Your task to perform on an android device: install app "ZOOM Cloud Meetings" Image 0: 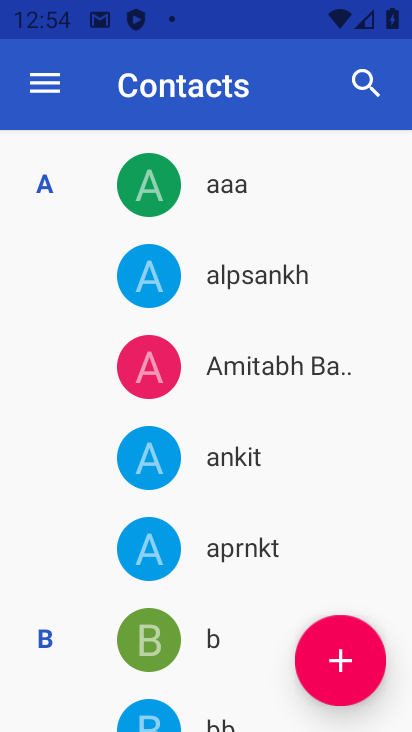
Step 0: press back button
Your task to perform on an android device: install app "ZOOM Cloud Meetings" Image 1: 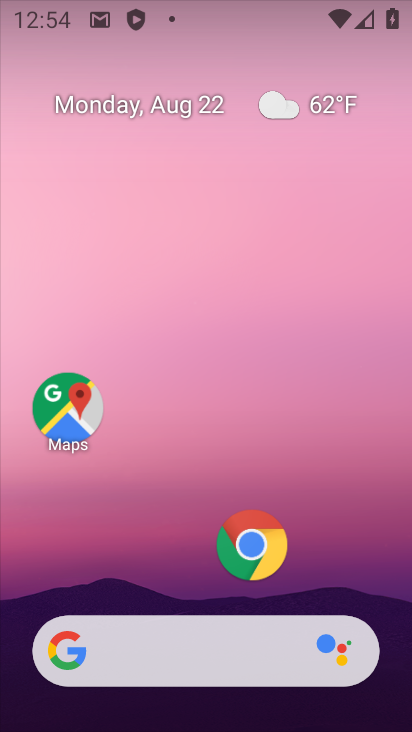
Step 1: drag from (165, 320) to (230, 18)
Your task to perform on an android device: install app "ZOOM Cloud Meetings" Image 2: 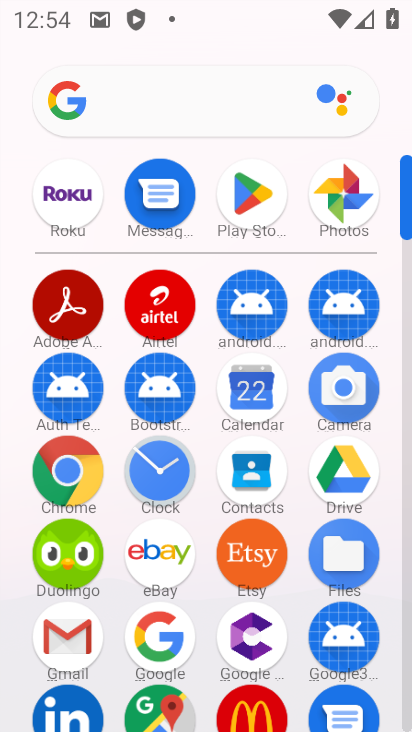
Step 2: click (243, 184)
Your task to perform on an android device: install app "ZOOM Cloud Meetings" Image 3: 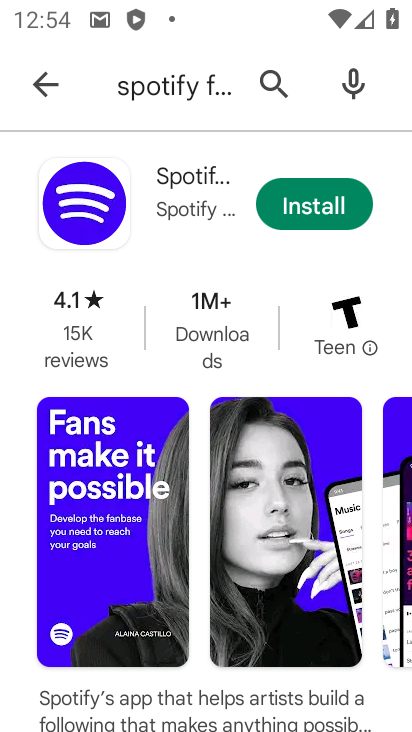
Step 3: click (269, 72)
Your task to perform on an android device: install app "ZOOM Cloud Meetings" Image 4: 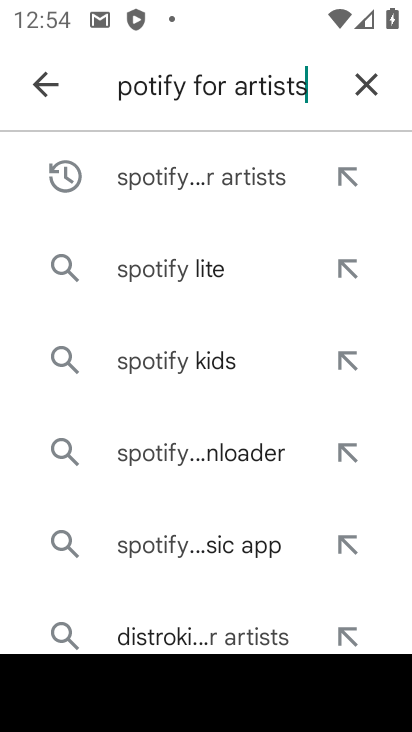
Step 4: click (352, 85)
Your task to perform on an android device: install app "ZOOM Cloud Meetings" Image 5: 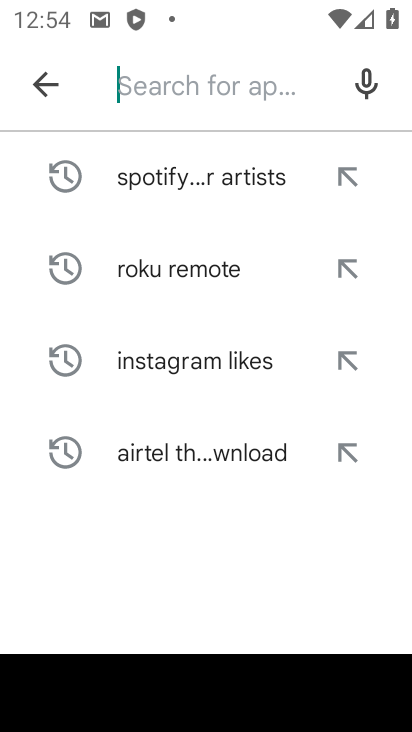
Step 5: click (147, 89)
Your task to perform on an android device: install app "ZOOM Cloud Meetings" Image 6: 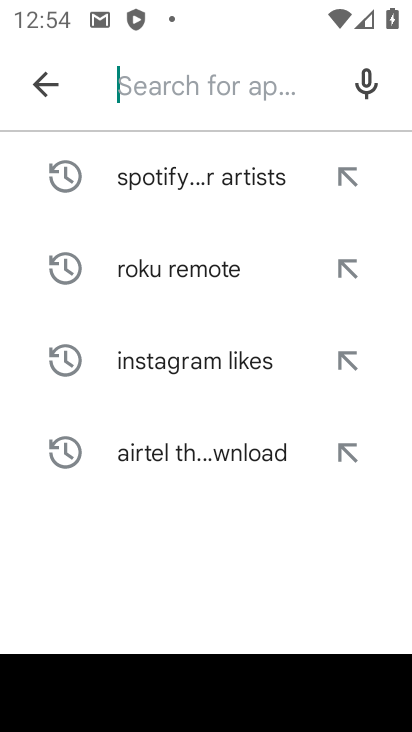
Step 6: type "zoom"
Your task to perform on an android device: install app "ZOOM Cloud Meetings" Image 7: 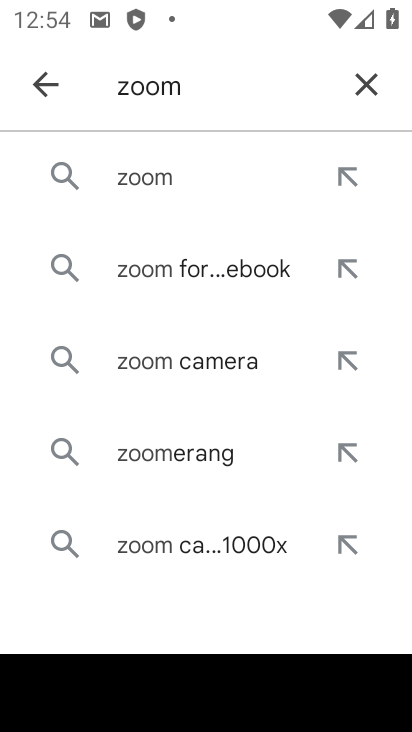
Step 7: click (133, 179)
Your task to perform on an android device: install app "ZOOM Cloud Meetings" Image 8: 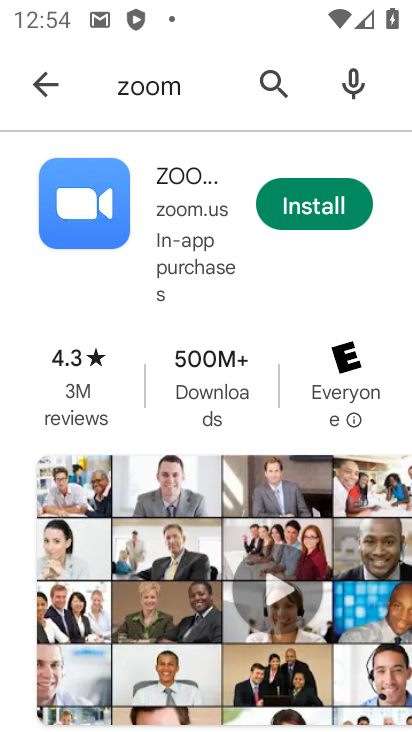
Step 8: click (311, 191)
Your task to perform on an android device: install app "ZOOM Cloud Meetings" Image 9: 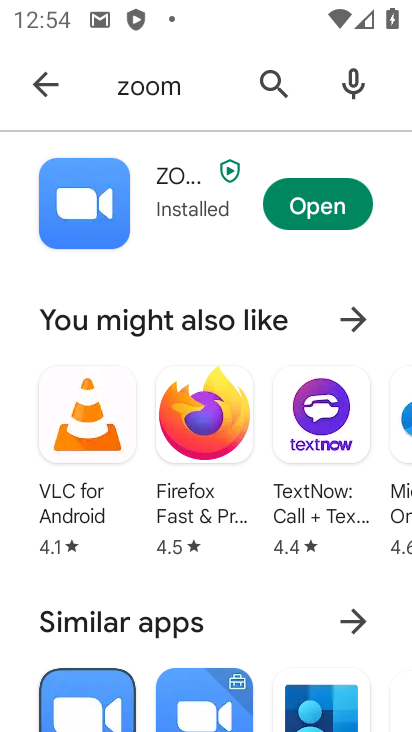
Step 9: task complete